Your task to perform on an android device: Open Amazon Image 0: 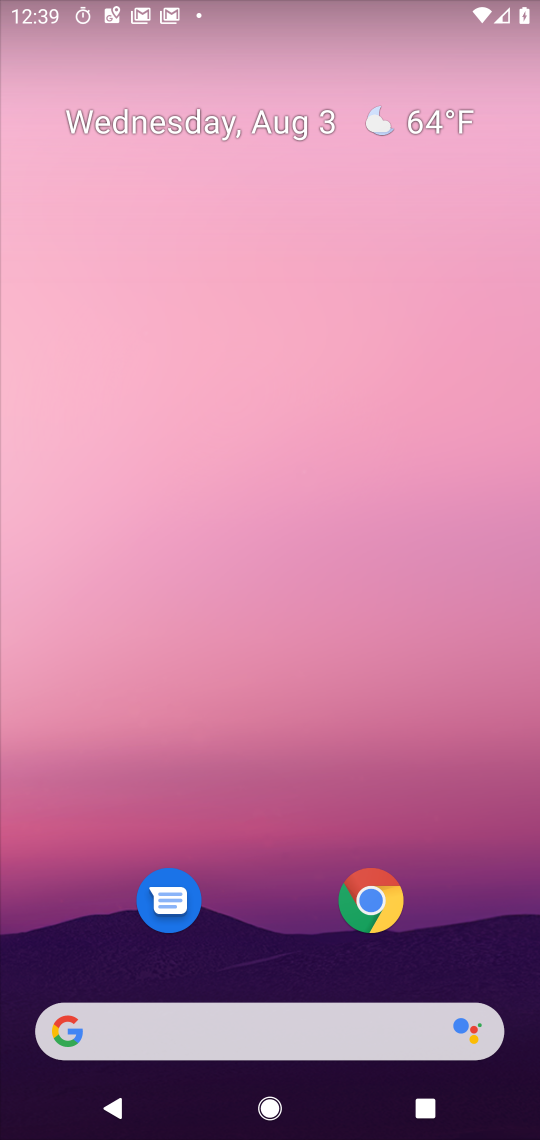
Step 0: drag from (266, 936) to (329, 119)
Your task to perform on an android device: Open Amazon Image 1: 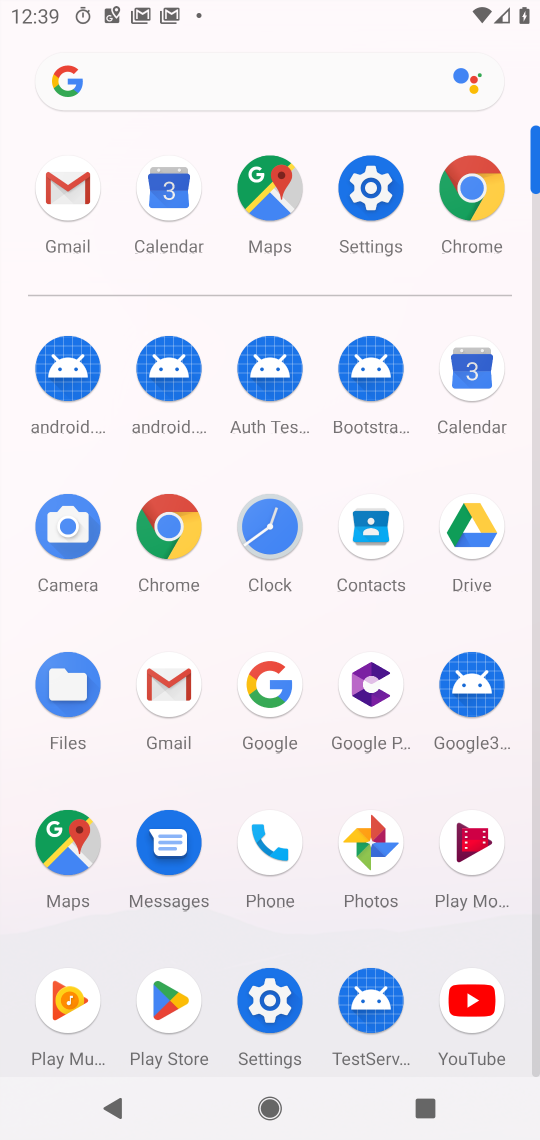
Step 1: click (169, 534)
Your task to perform on an android device: Open Amazon Image 2: 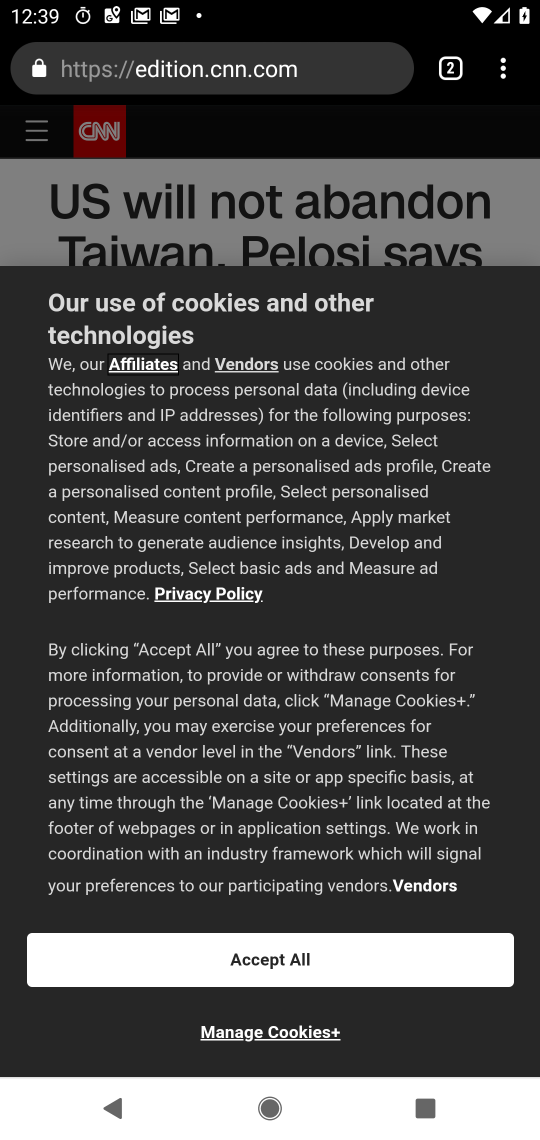
Step 2: click (294, 75)
Your task to perform on an android device: Open Amazon Image 3: 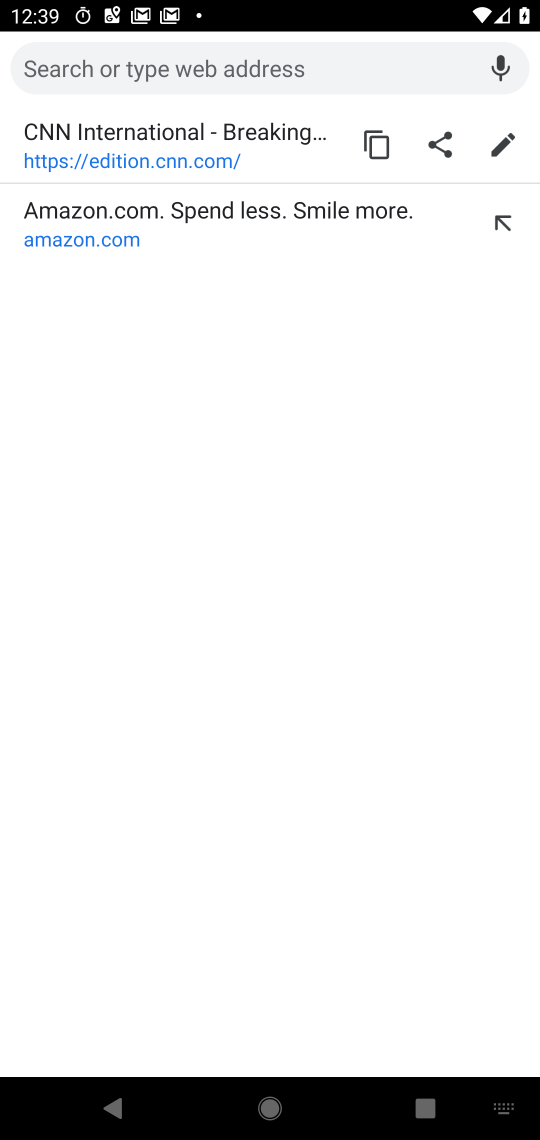
Step 3: click (123, 239)
Your task to perform on an android device: Open Amazon Image 4: 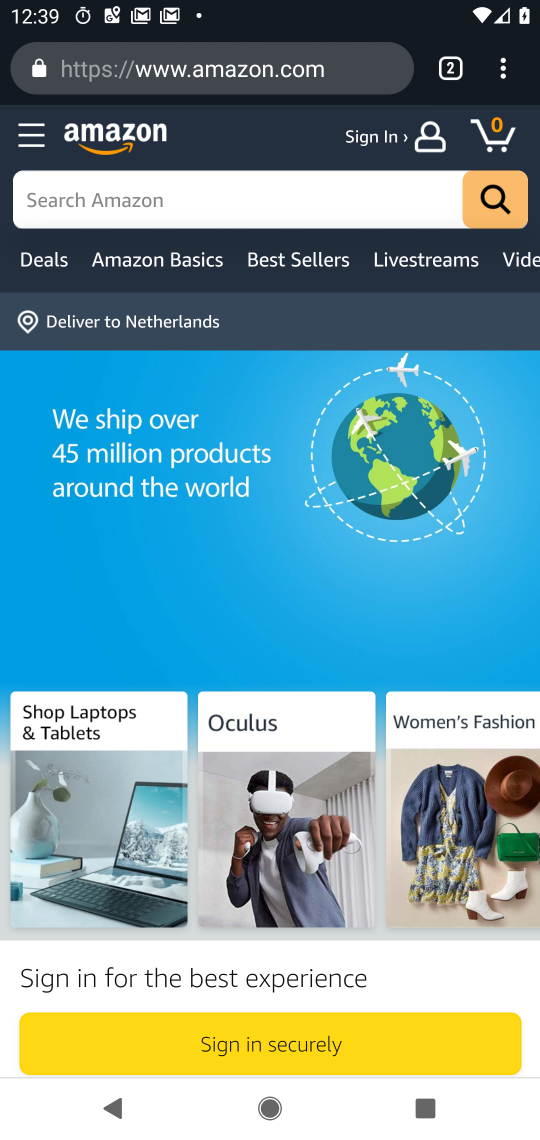
Step 4: task complete